Your task to perform on an android device: Search for Italian restaurants on Maps Image 0: 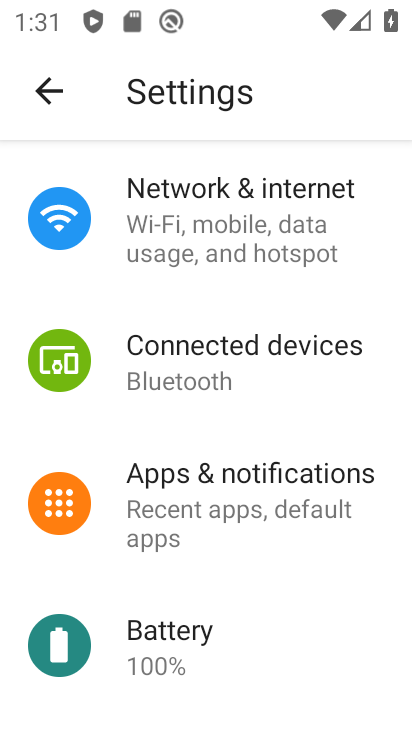
Step 0: press home button
Your task to perform on an android device: Search for Italian restaurants on Maps Image 1: 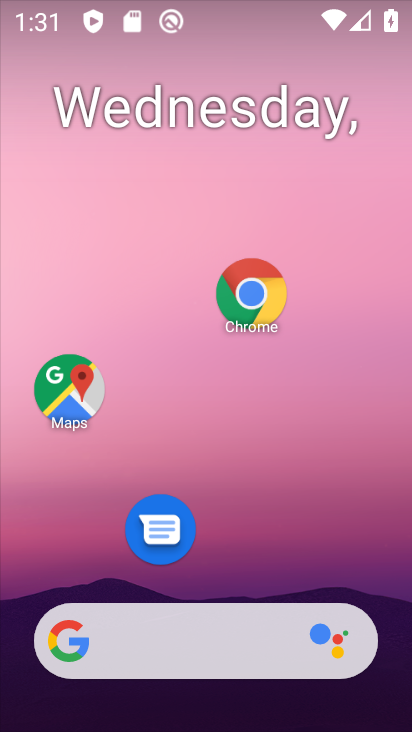
Step 1: drag from (267, 573) to (332, 157)
Your task to perform on an android device: Search for Italian restaurants on Maps Image 2: 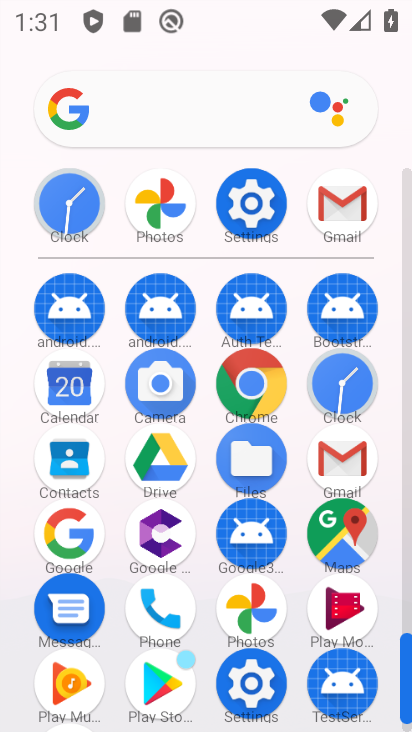
Step 2: click (355, 529)
Your task to perform on an android device: Search for Italian restaurants on Maps Image 3: 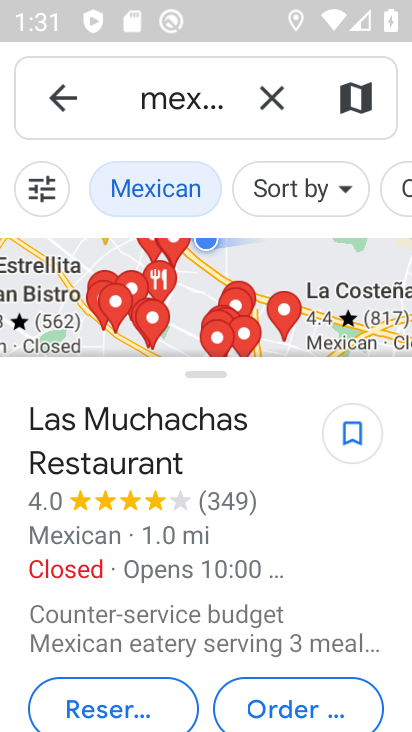
Step 3: click (275, 105)
Your task to perform on an android device: Search for Italian restaurants on Maps Image 4: 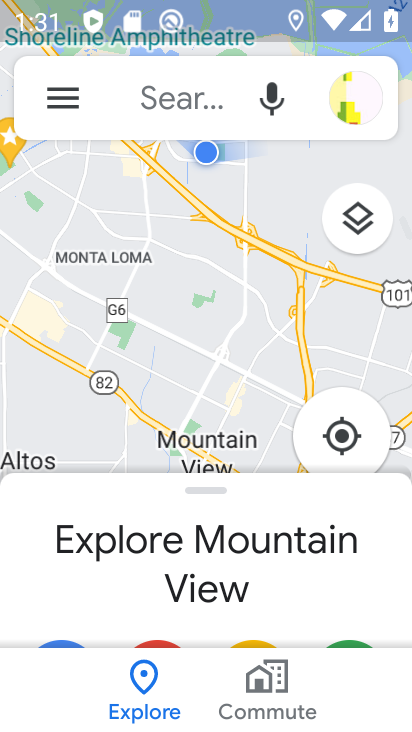
Step 4: click (205, 113)
Your task to perform on an android device: Search for Italian restaurants on Maps Image 5: 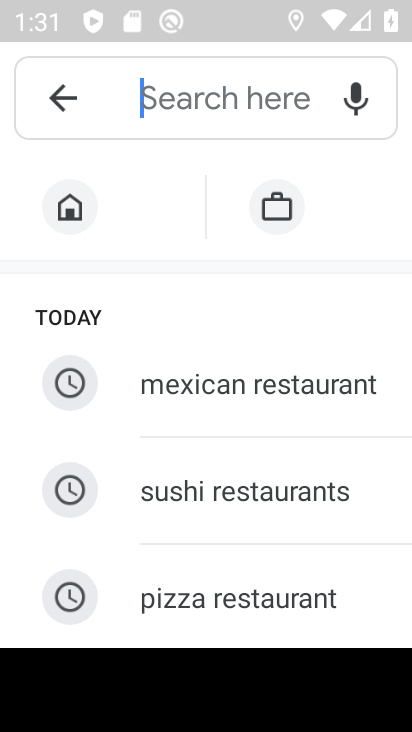
Step 5: drag from (185, 530) to (154, 294)
Your task to perform on an android device: Search for Italian restaurants on Maps Image 6: 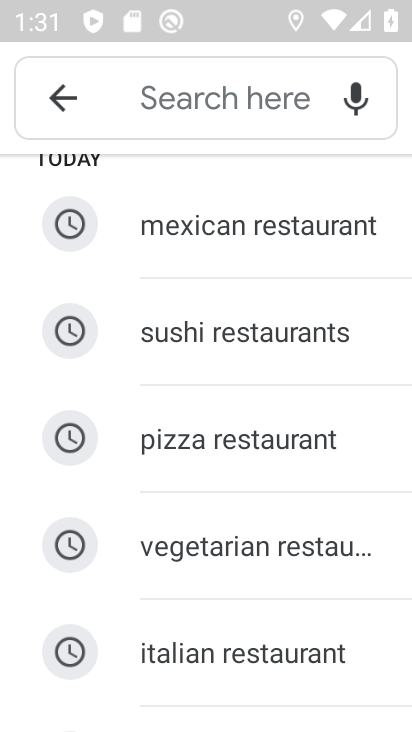
Step 6: click (246, 654)
Your task to perform on an android device: Search for Italian restaurants on Maps Image 7: 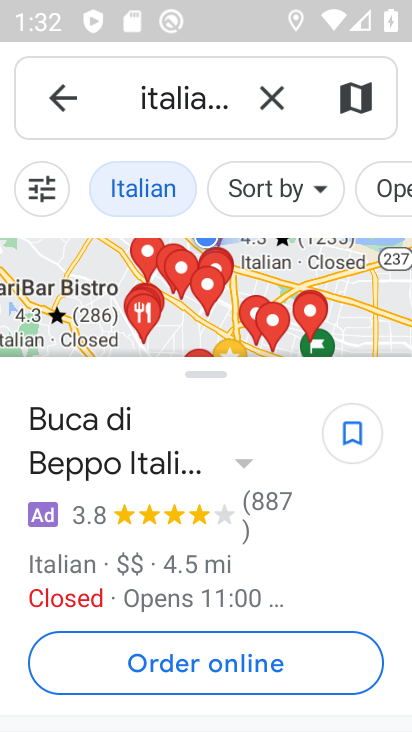
Step 7: task complete